Your task to perform on an android device: Open eBay Image 0: 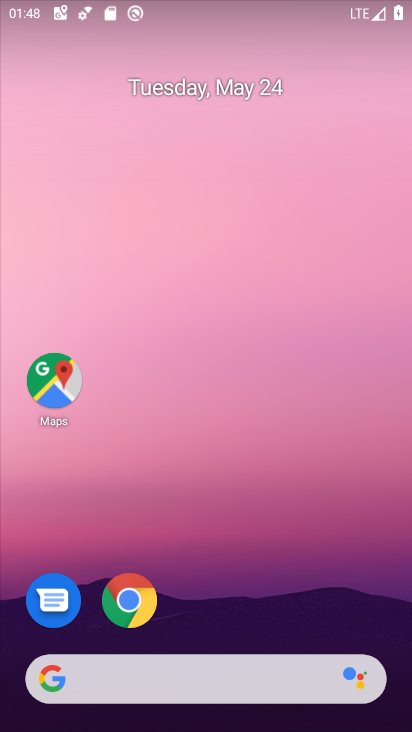
Step 0: click (140, 598)
Your task to perform on an android device: Open eBay Image 1: 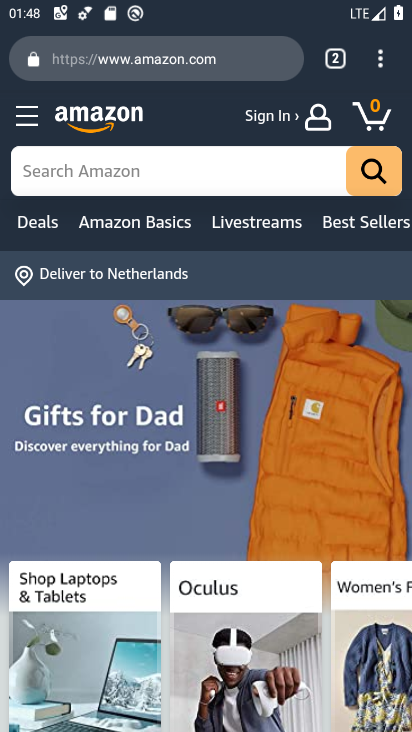
Step 1: click (322, 61)
Your task to perform on an android device: Open eBay Image 2: 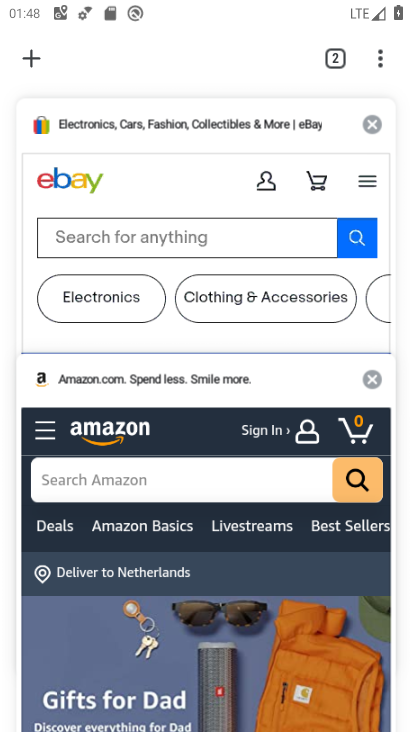
Step 2: click (322, 61)
Your task to perform on an android device: Open eBay Image 3: 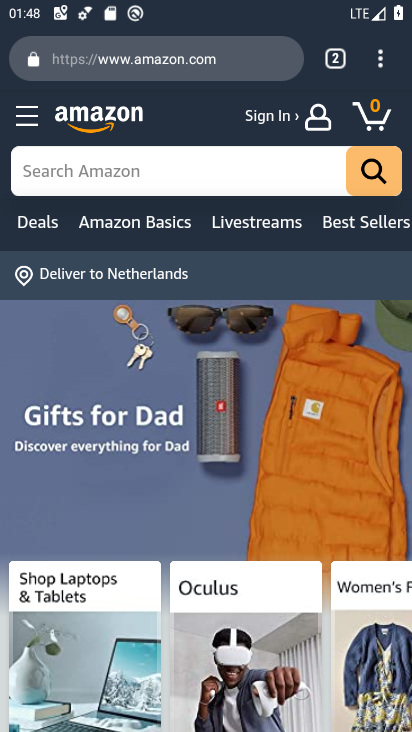
Step 3: click (338, 45)
Your task to perform on an android device: Open eBay Image 4: 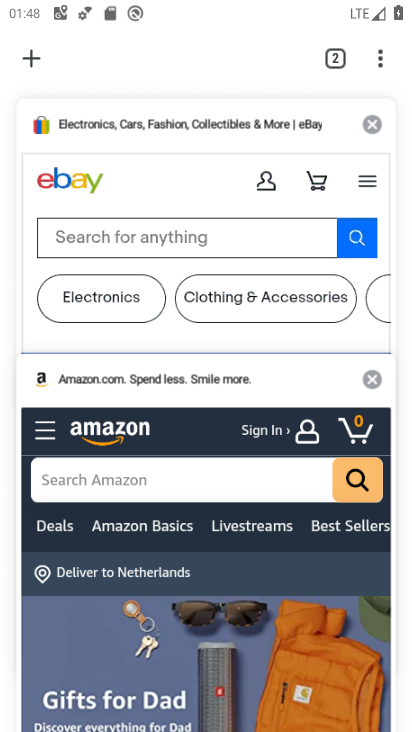
Step 4: click (238, 150)
Your task to perform on an android device: Open eBay Image 5: 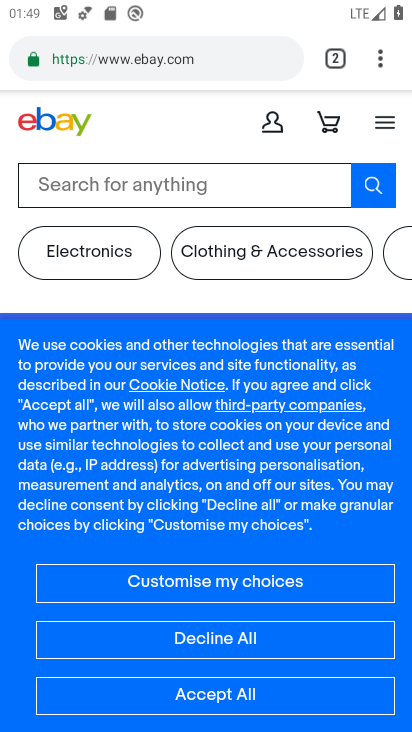
Step 5: task complete